Your task to perform on an android device: turn on location history Image 0: 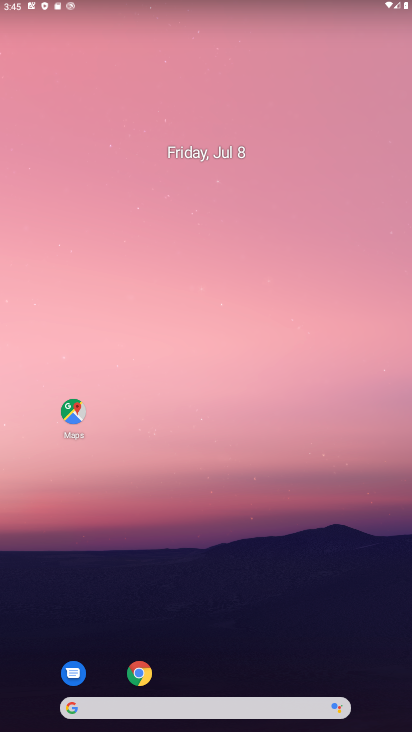
Step 0: drag from (251, 659) to (284, 62)
Your task to perform on an android device: turn on location history Image 1: 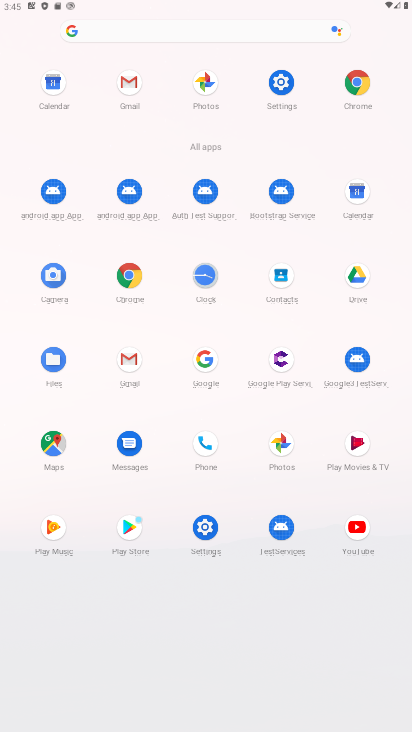
Step 1: click (54, 434)
Your task to perform on an android device: turn on location history Image 2: 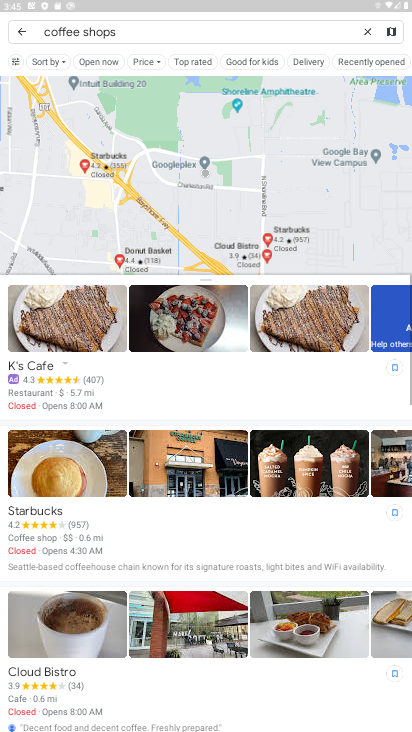
Step 2: click (366, 31)
Your task to perform on an android device: turn on location history Image 3: 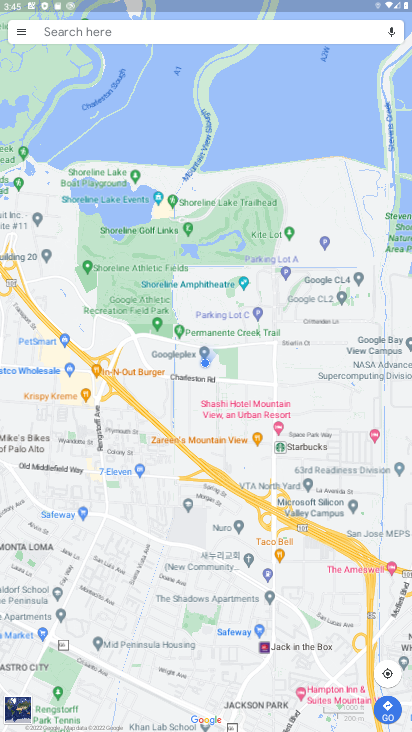
Step 3: click (16, 31)
Your task to perform on an android device: turn on location history Image 4: 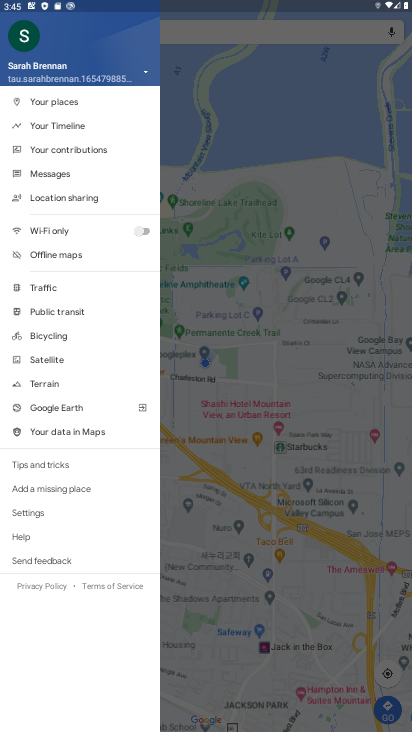
Step 4: click (48, 125)
Your task to perform on an android device: turn on location history Image 5: 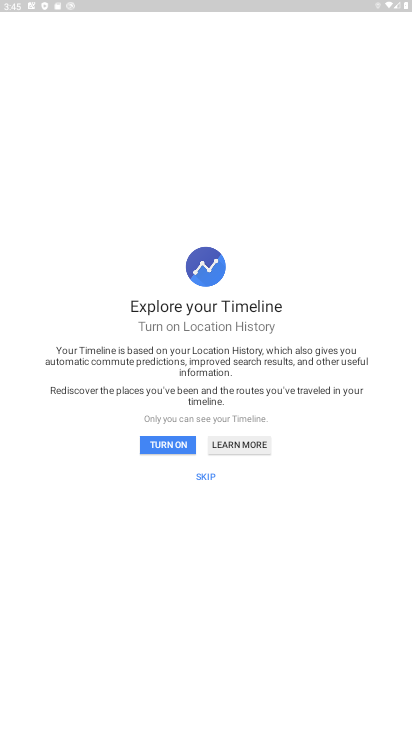
Step 5: click (208, 476)
Your task to perform on an android device: turn on location history Image 6: 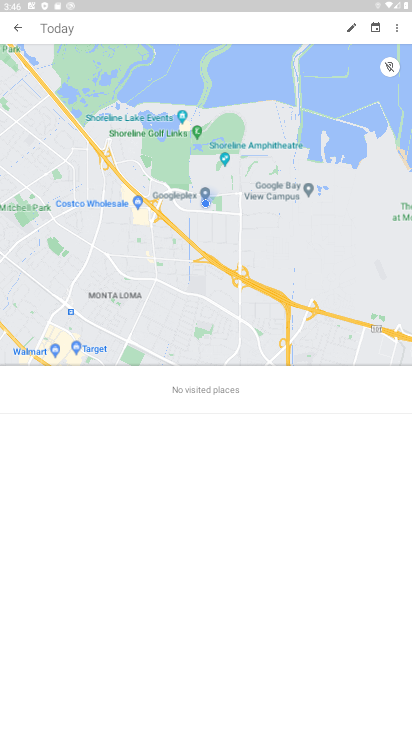
Step 6: click (395, 29)
Your task to perform on an android device: turn on location history Image 7: 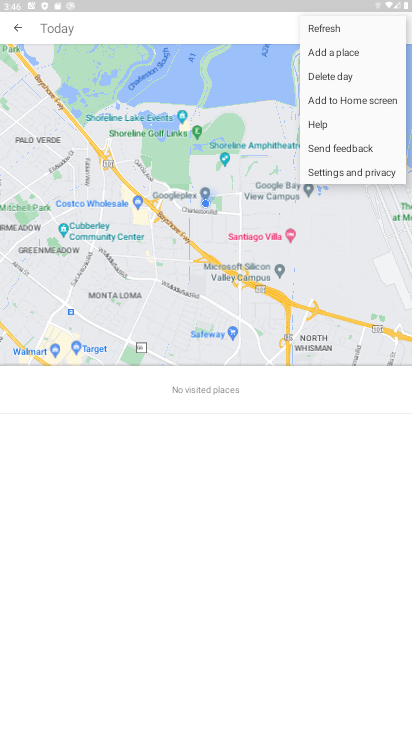
Step 7: click (340, 172)
Your task to perform on an android device: turn on location history Image 8: 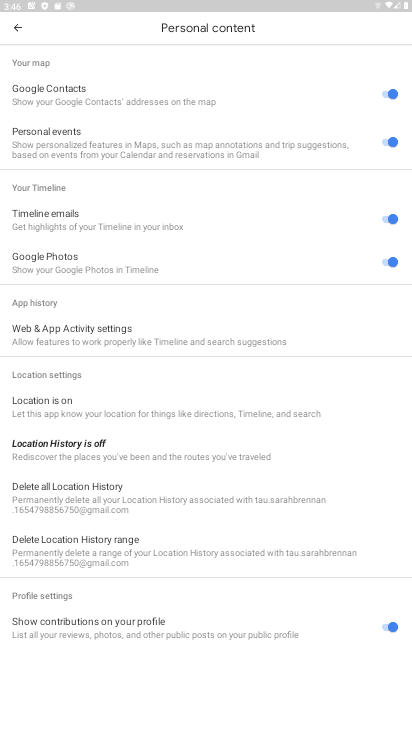
Step 8: click (70, 442)
Your task to perform on an android device: turn on location history Image 9: 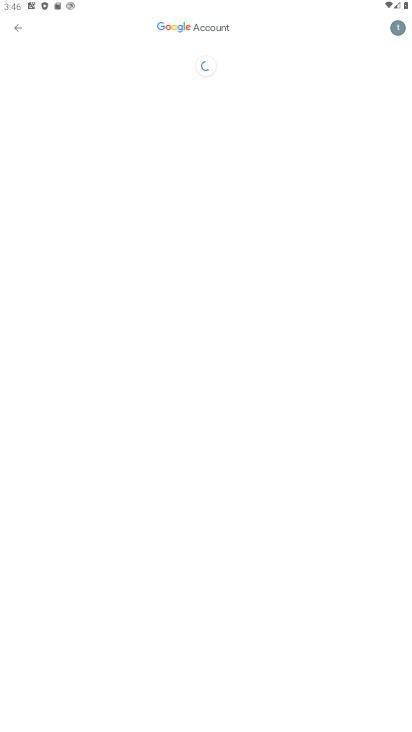
Step 9: click (310, 408)
Your task to perform on an android device: turn on location history Image 10: 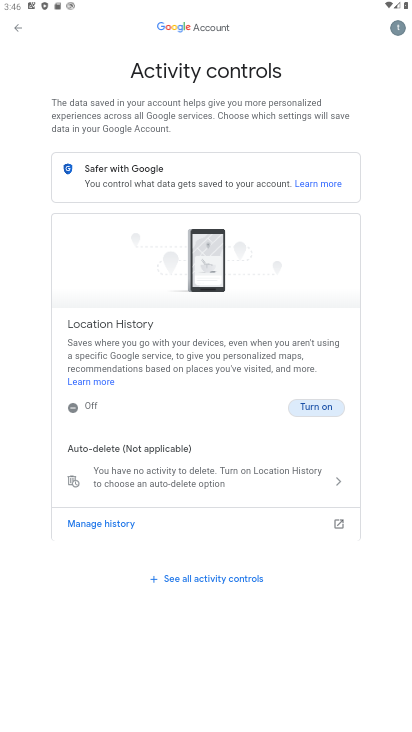
Step 10: click (310, 408)
Your task to perform on an android device: turn on location history Image 11: 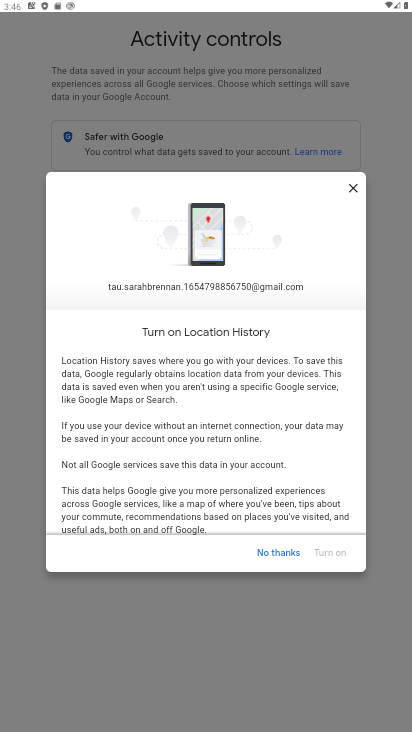
Step 11: drag from (241, 487) to (246, 343)
Your task to perform on an android device: turn on location history Image 12: 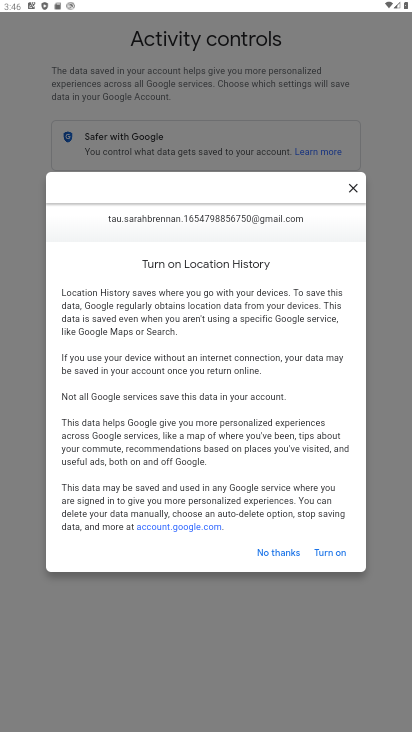
Step 12: click (330, 556)
Your task to perform on an android device: turn on location history Image 13: 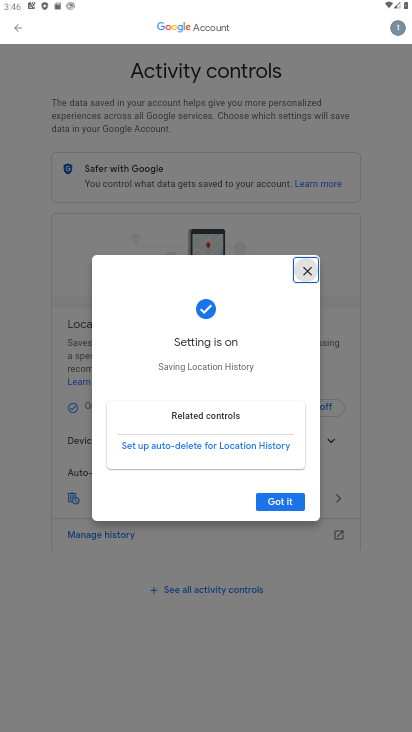
Step 13: click (294, 501)
Your task to perform on an android device: turn on location history Image 14: 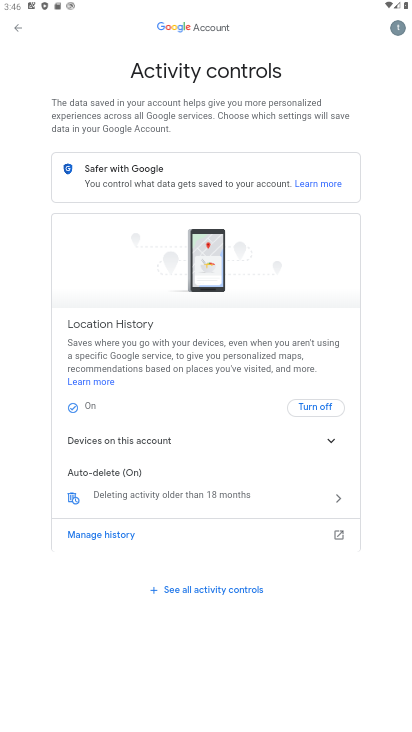
Step 14: task complete